Your task to perform on an android device: Set the phone to "Do not disturb". Image 0: 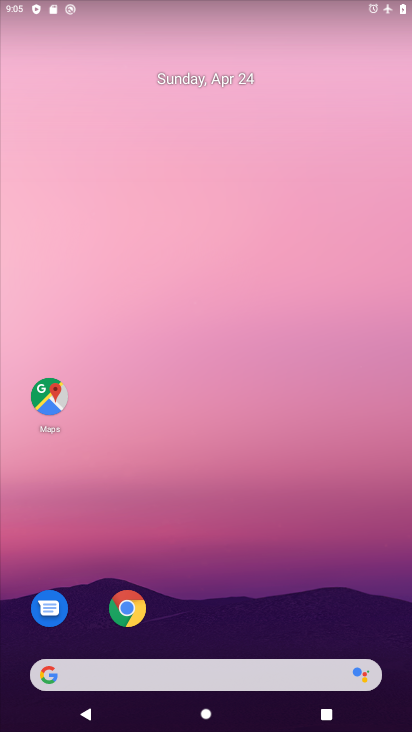
Step 0: drag from (204, 610) to (193, 96)
Your task to perform on an android device: Set the phone to "Do not disturb". Image 1: 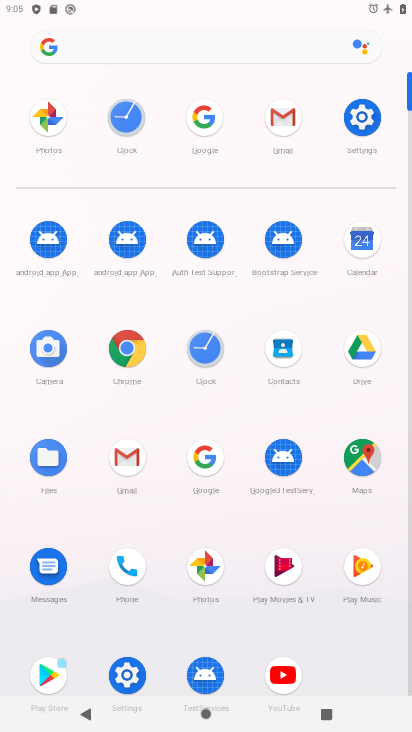
Step 1: click (355, 116)
Your task to perform on an android device: Set the phone to "Do not disturb". Image 2: 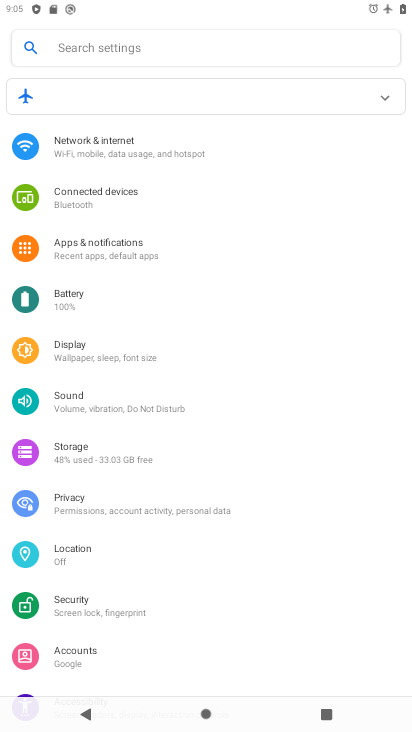
Step 2: click (116, 399)
Your task to perform on an android device: Set the phone to "Do not disturb". Image 3: 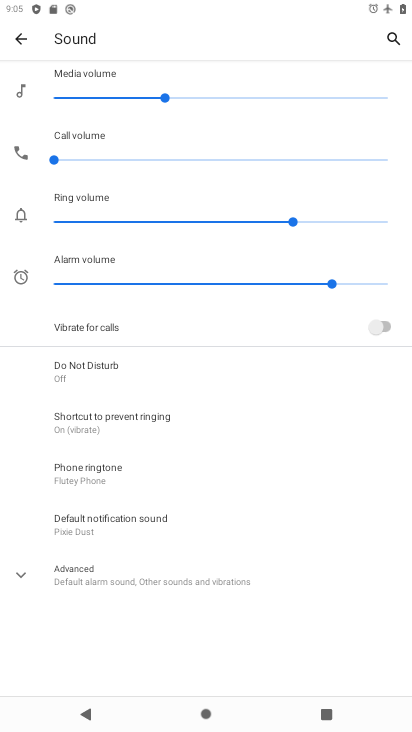
Step 3: click (118, 376)
Your task to perform on an android device: Set the phone to "Do not disturb". Image 4: 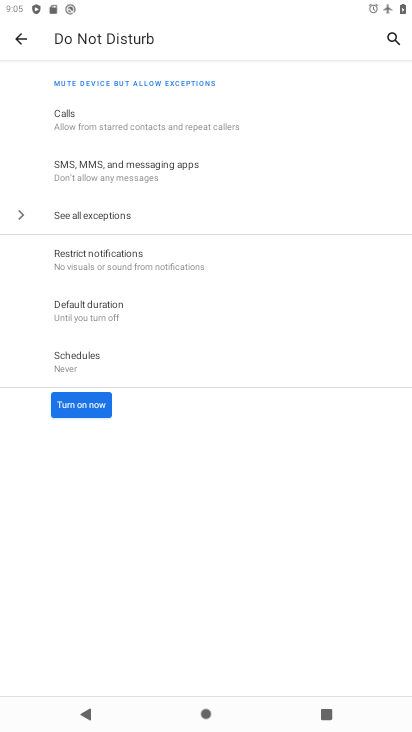
Step 4: click (103, 400)
Your task to perform on an android device: Set the phone to "Do not disturb". Image 5: 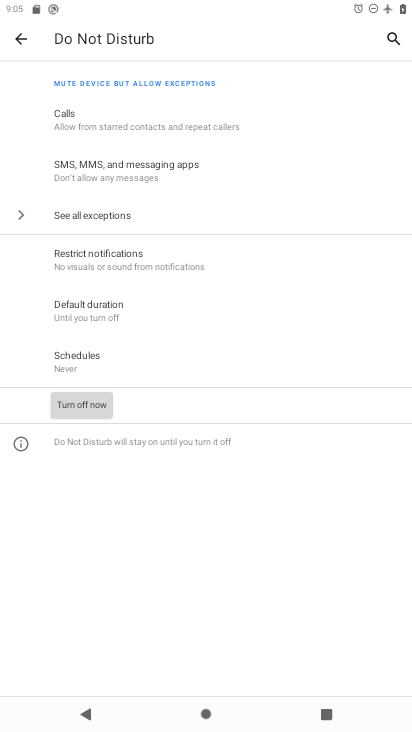
Step 5: task complete